Your task to perform on an android device: check the backup settings in the google photos Image 0: 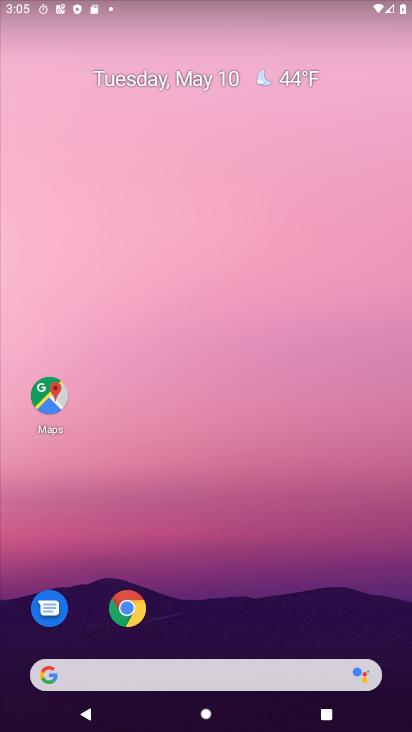
Step 0: drag from (325, 625) to (327, 58)
Your task to perform on an android device: check the backup settings in the google photos Image 1: 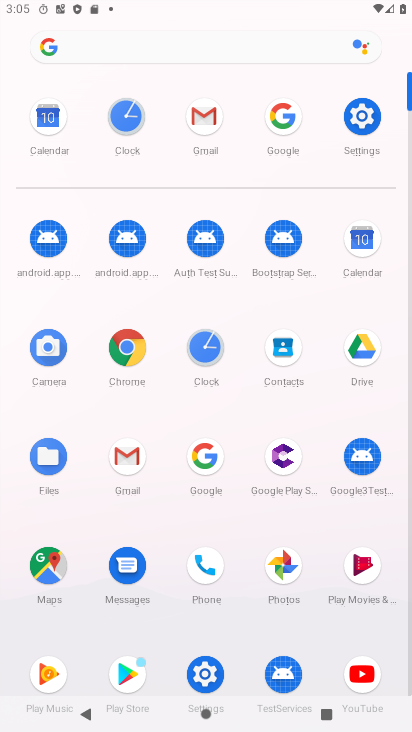
Step 1: click (290, 567)
Your task to perform on an android device: check the backup settings in the google photos Image 2: 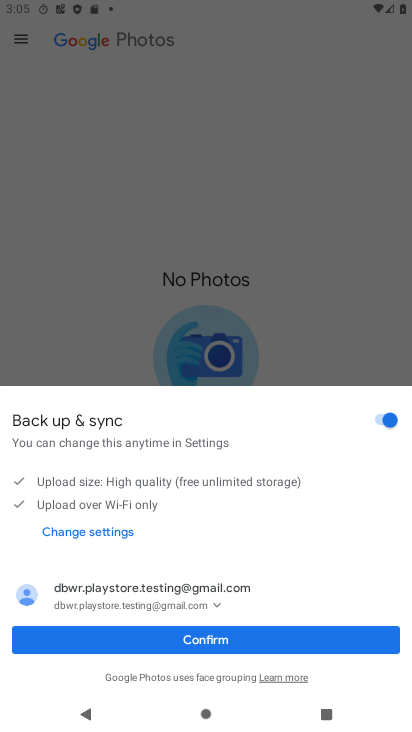
Step 2: click (207, 639)
Your task to perform on an android device: check the backup settings in the google photos Image 3: 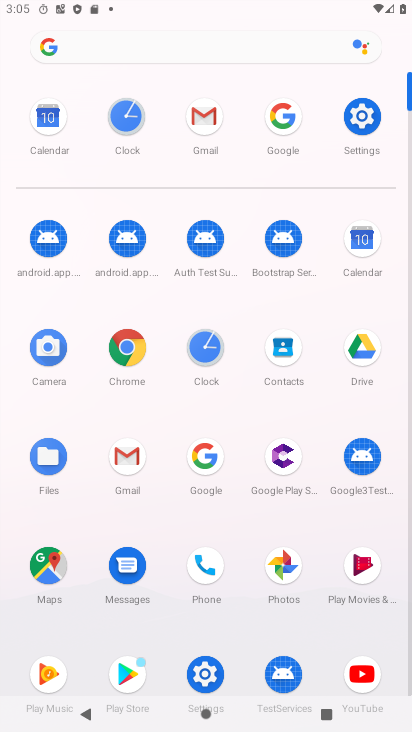
Step 3: click (271, 573)
Your task to perform on an android device: check the backup settings in the google photos Image 4: 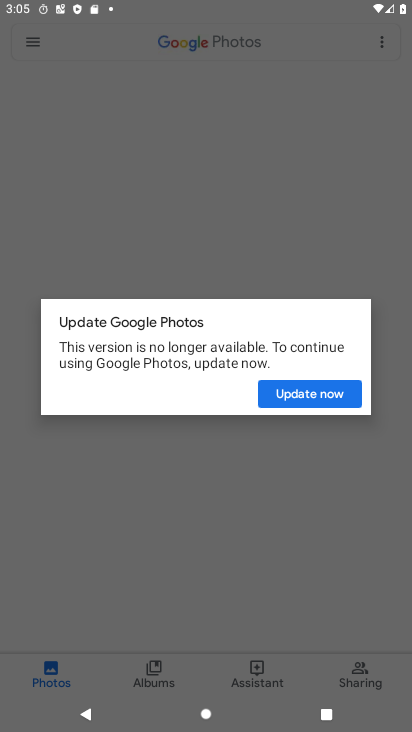
Step 4: click (317, 395)
Your task to perform on an android device: check the backup settings in the google photos Image 5: 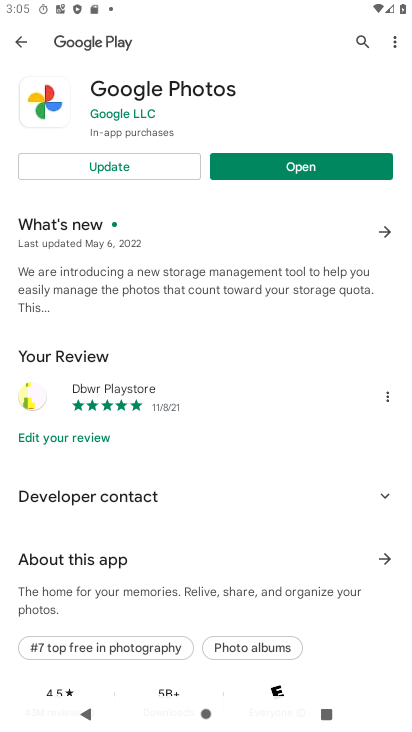
Step 5: click (265, 167)
Your task to perform on an android device: check the backup settings in the google photos Image 6: 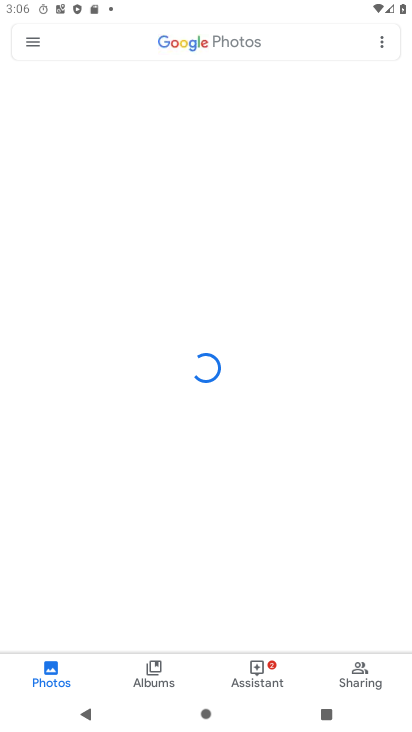
Step 6: click (36, 41)
Your task to perform on an android device: check the backup settings in the google photos Image 7: 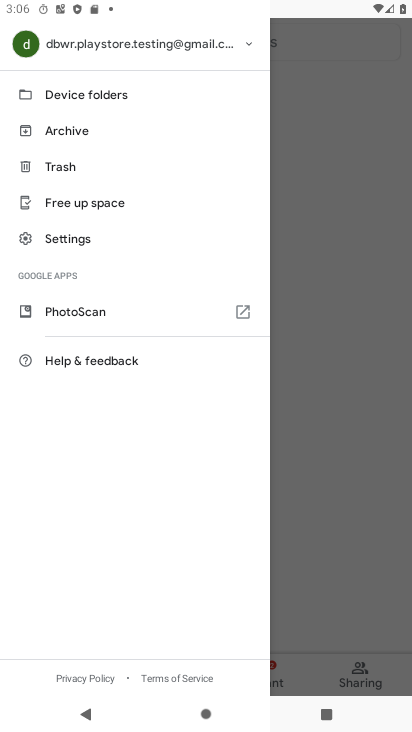
Step 7: click (65, 242)
Your task to perform on an android device: check the backup settings in the google photos Image 8: 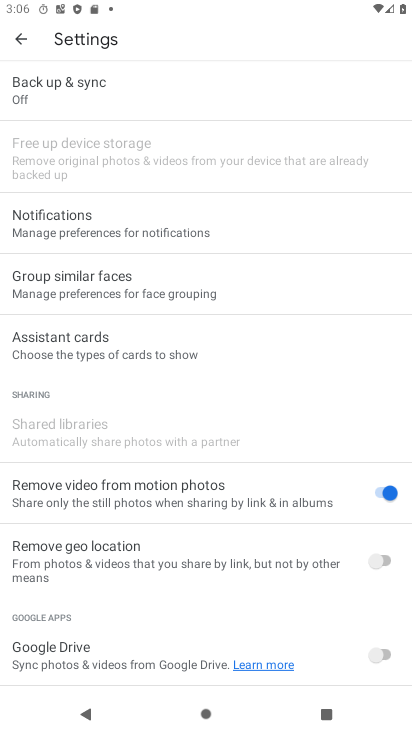
Step 8: click (62, 90)
Your task to perform on an android device: check the backup settings in the google photos Image 9: 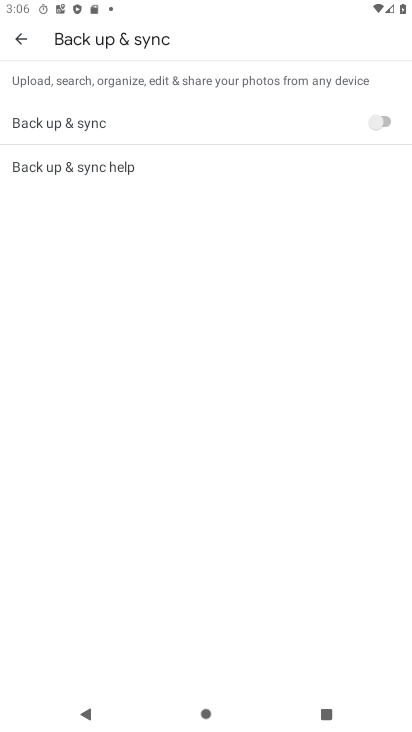
Step 9: task complete